Your task to perform on an android device: Is it going to rain this weekend? Image 0: 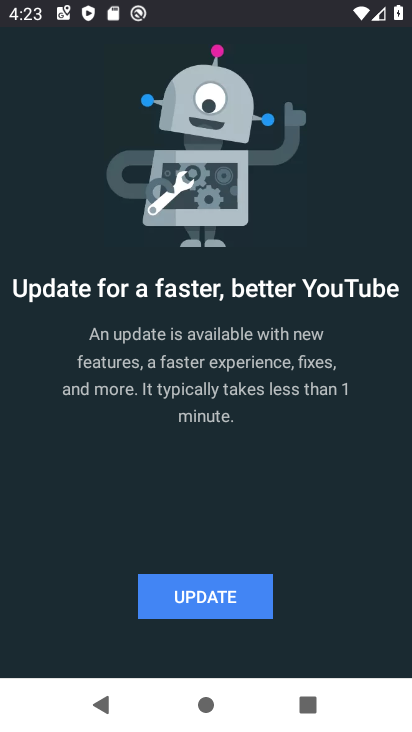
Step 0: press home button
Your task to perform on an android device: Is it going to rain this weekend? Image 1: 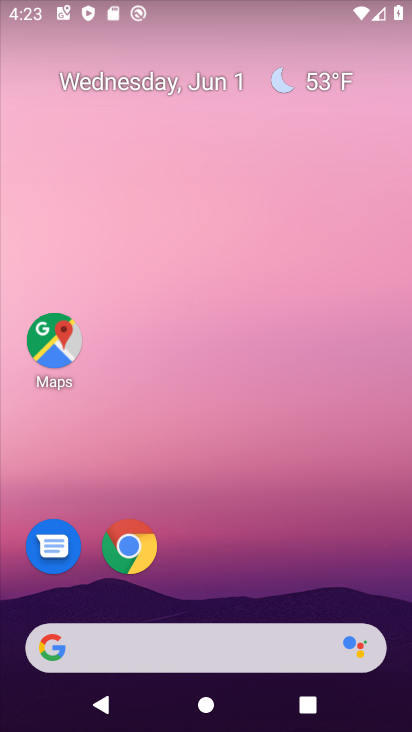
Step 1: click (186, 651)
Your task to perform on an android device: Is it going to rain this weekend? Image 2: 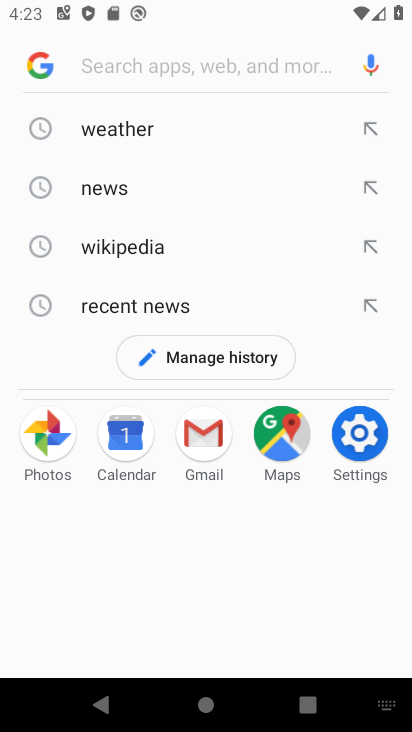
Step 2: click (123, 128)
Your task to perform on an android device: Is it going to rain this weekend? Image 3: 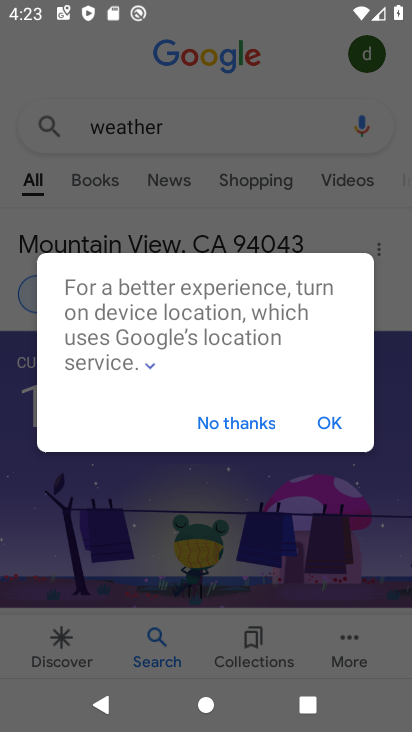
Step 3: click (315, 422)
Your task to perform on an android device: Is it going to rain this weekend? Image 4: 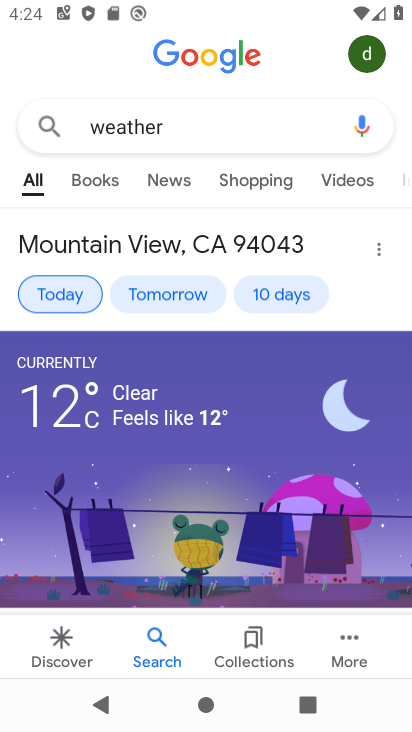
Step 4: click (267, 286)
Your task to perform on an android device: Is it going to rain this weekend? Image 5: 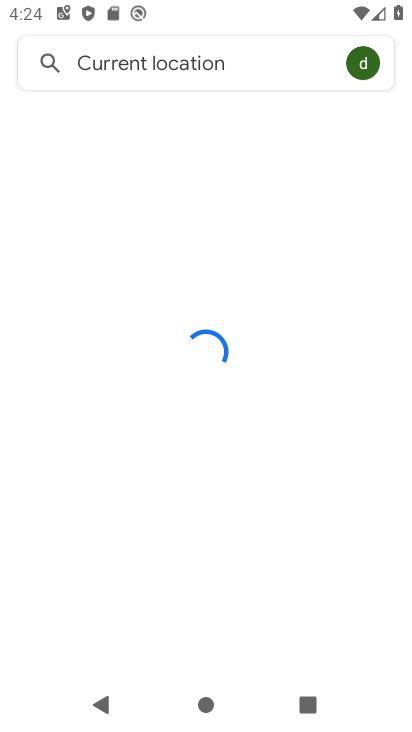
Step 5: click (270, 296)
Your task to perform on an android device: Is it going to rain this weekend? Image 6: 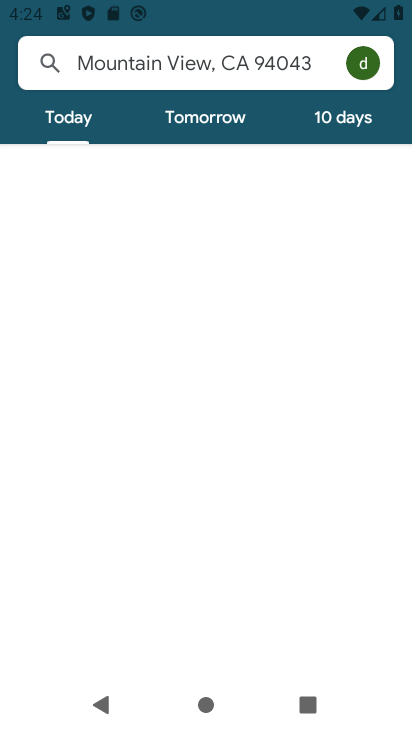
Step 6: click (270, 296)
Your task to perform on an android device: Is it going to rain this weekend? Image 7: 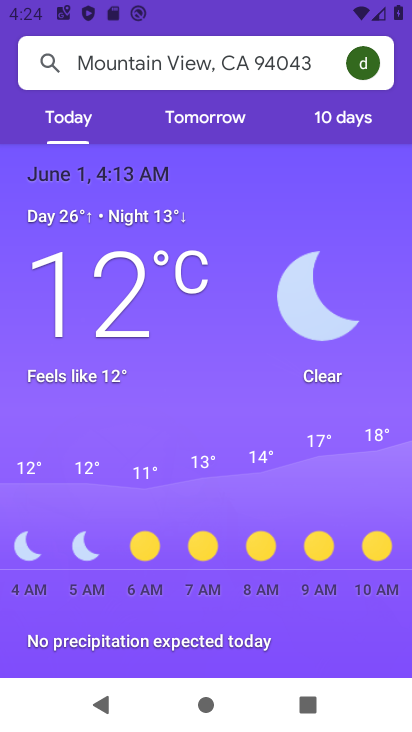
Step 7: click (331, 117)
Your task to perform on an android device: Is it going to rain this weekend? Image 8: 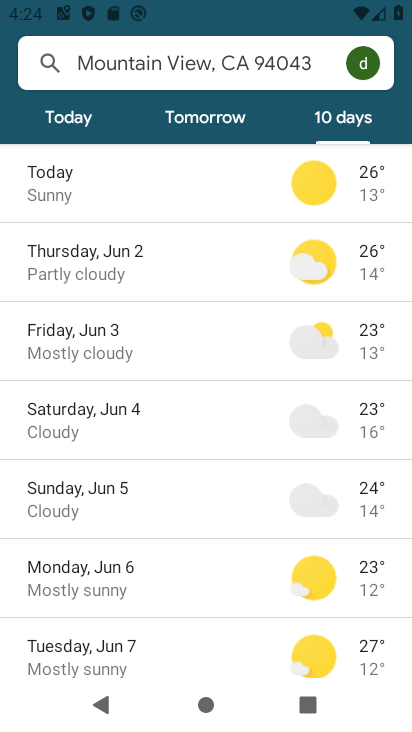
Step 8: task complete